Your task to perform on an android device: add a contact Image 0: 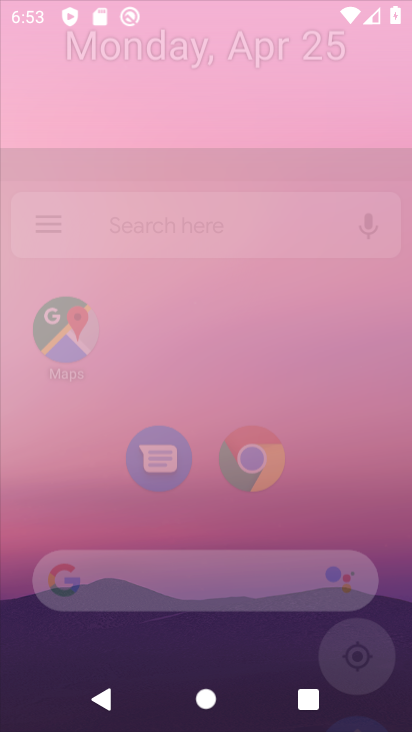
Step 0: drag from (342, 546) to (206, 5)
Your task to perform on an android device: add a contact Image 1: 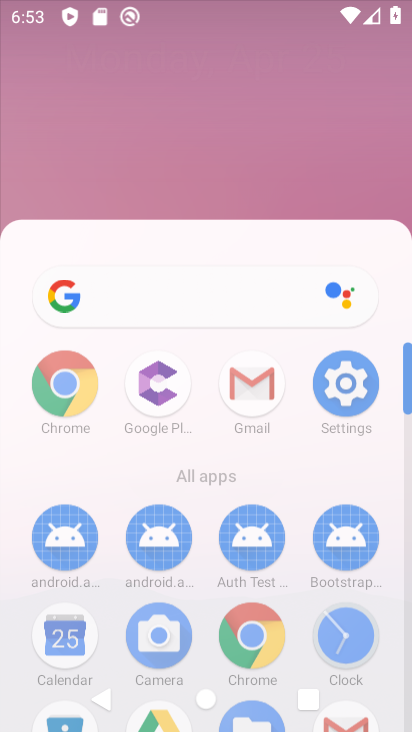
Step 1: press home button
Your task to perform on an android device: add a contact Image 2: 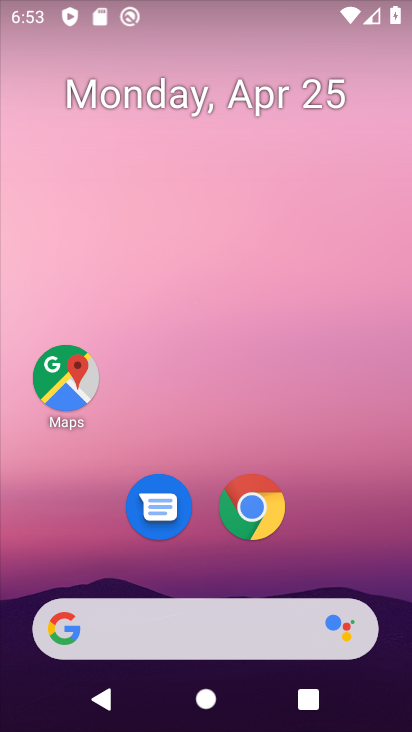
Step 2: drag from (323, 518) to (271, 185)
Your task to perform on an android device: add a contact Image 3: 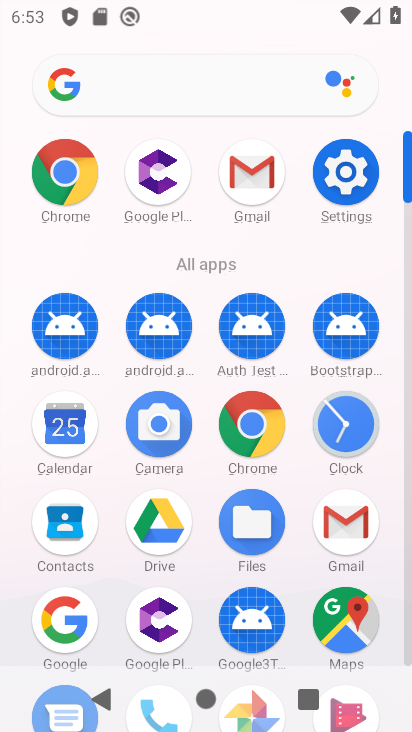
Step 3: click (66, 522)
Your task to perform on an android device: add a contact Image 4: 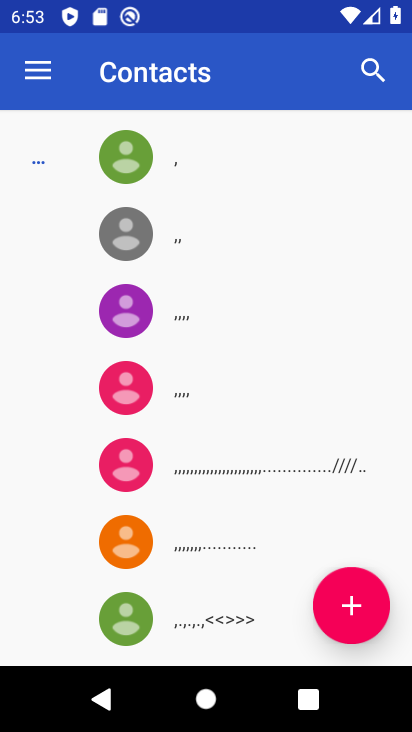
Step 4: click (354, 618)
Your task to perform on an android device: add a contact Image 5: 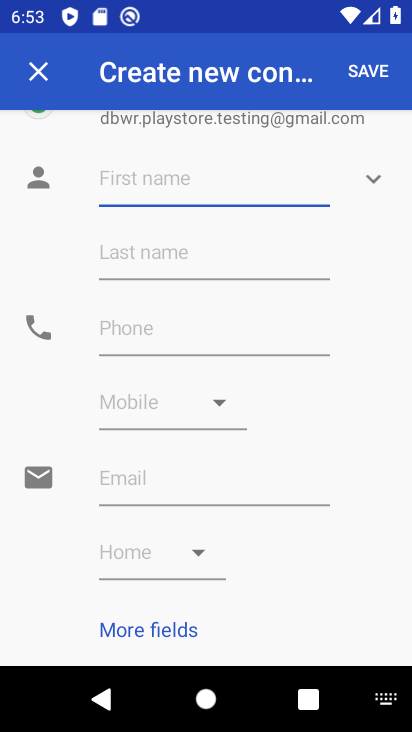
Step 5: type "szxs"
Your task to perform on an android device: add a contact Image 6: 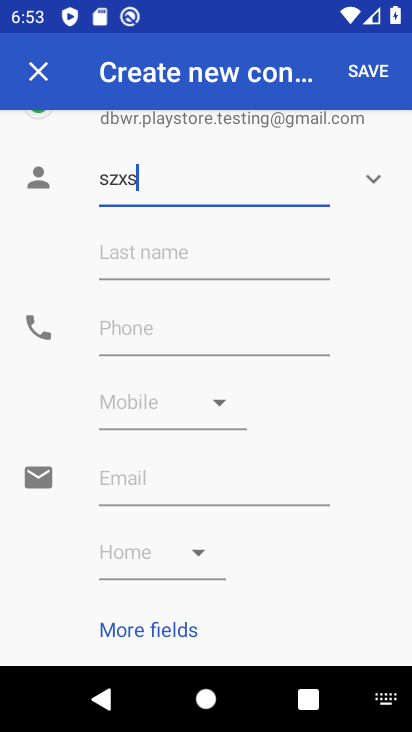
Step 6: drag from (170, 247) to (200, 313)
Your task to perform on an android device: add a contact Image 7: 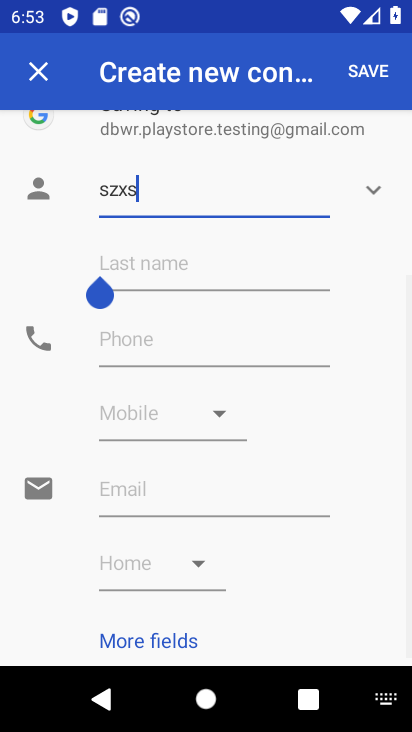
Step 7: click (202, 342)
Your task to perform on an android device: add a contact Image 8: 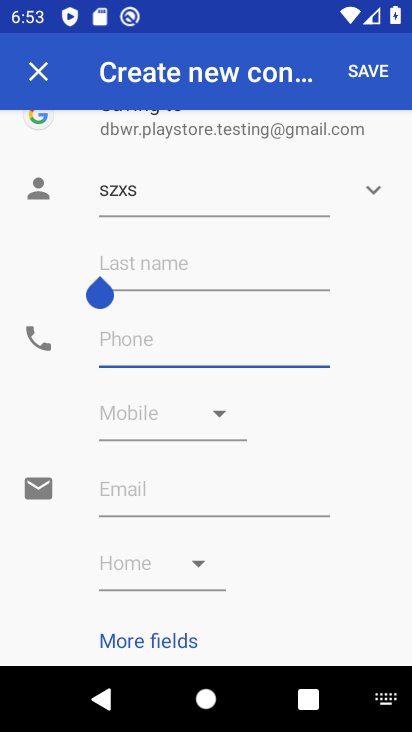
Step 8: click (202, 342)
Your task to perform on an android device: add a contact Image 9: 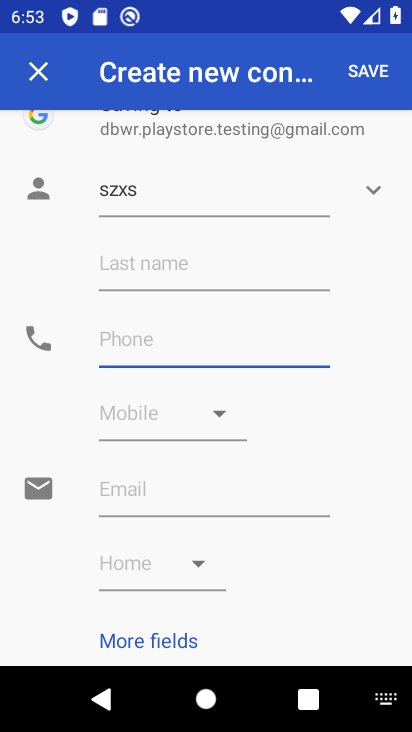
Step 9: type "1223"
Your task to perform on an android device: add a contact Image 10: 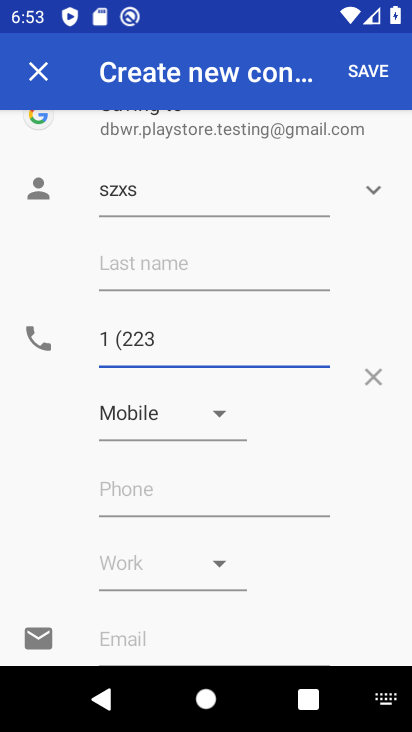
Step 10: click (362, 64)
Your task to perform on an android device: add a contact Image 11: 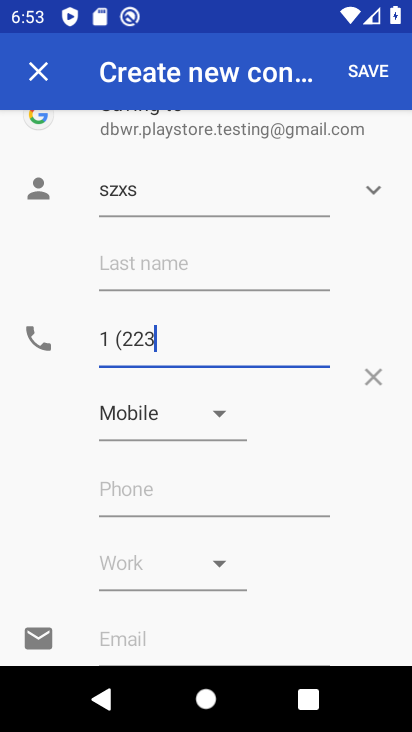
Step 11: click (362, 64)
Your task to perform on an android device: add a contact Image 12: 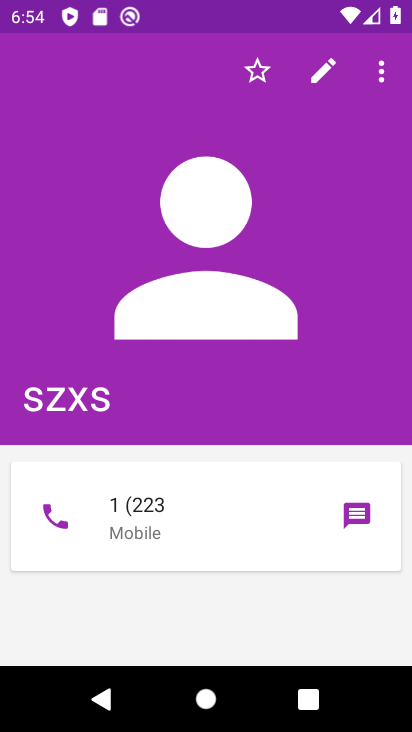
Step 12: task complete